Your task to perform on an android device: change keyboard looks Image 0: 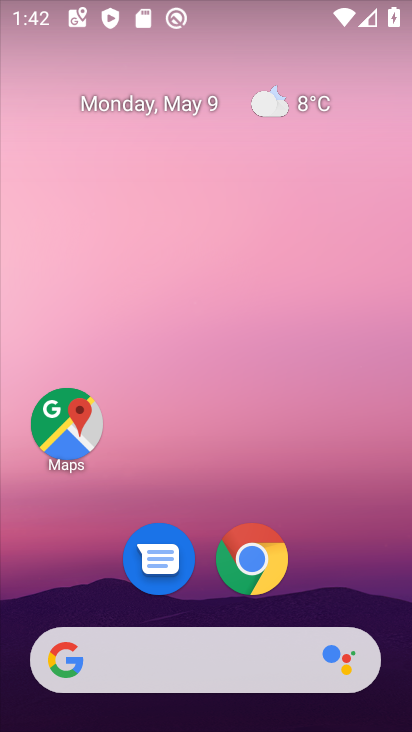
Step 0: drag from (254, 471) to (188, 5)
Your task to perform on an android device: change keyboard looks Image 1: 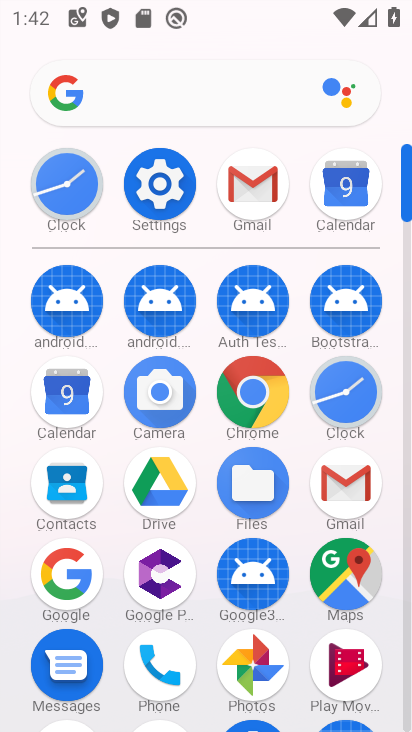
Step 1: click (158, 178)
Your task to perform on an android device: change keyboard looks Image 2: 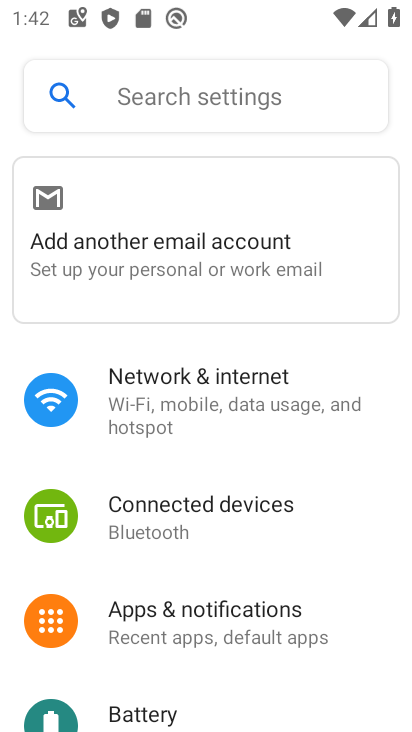
Step 2: drag from (224, 583) to (166, 191)
Your task to perform on an android device: change keyboard looks Image 3: 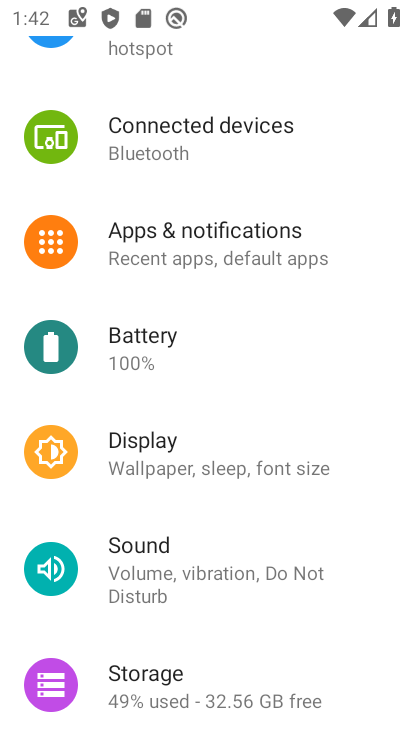
Step 3: drag from (230, 514) to (161, 8)
Your task to perform on an android device: change keyboard looks Image 4: 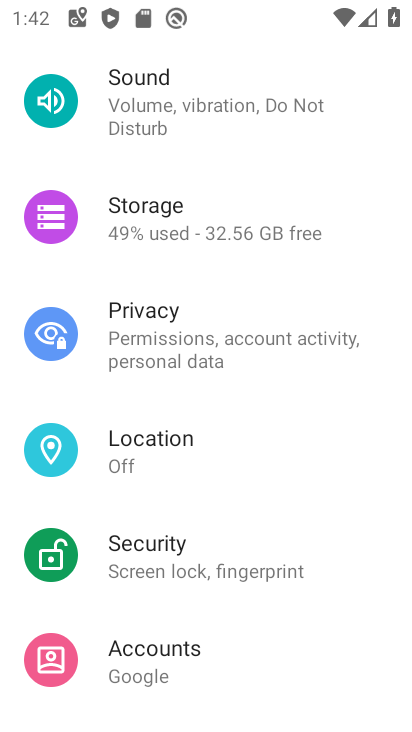
Step 4: drag from (200, 467) to (174, 230)
Your task to perform on an android device: change keyboard looks Image 5: 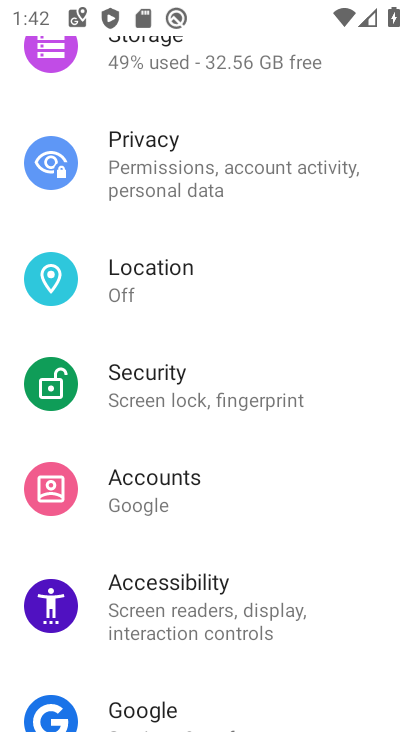
Step 5: drag from (214, 550) to (141, 146)
Your task to perform on an android device: change keyboard looks Image 6: 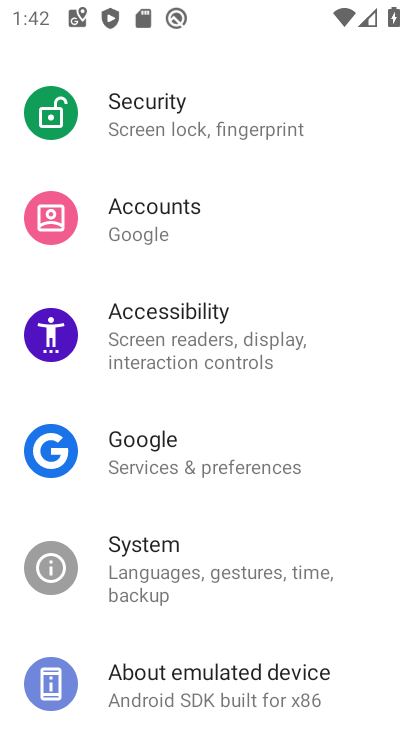
Step 6: click (152, 548)
Your task to perform on an android device: change keyboard looks Image 7: 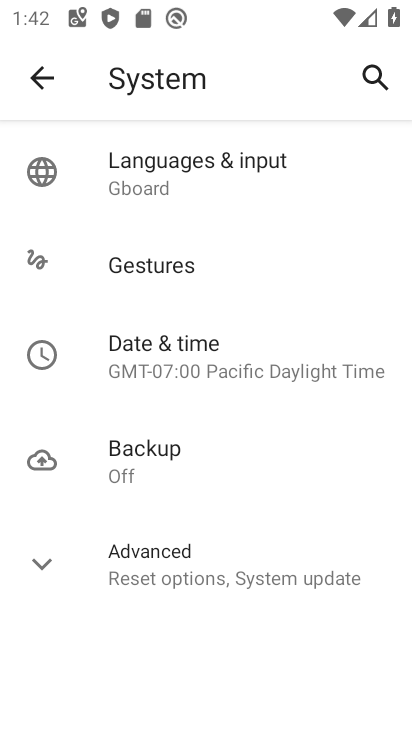
Step 7: click (130, 171)
Your task to perform on an android device: change keyboard looks Image 8: 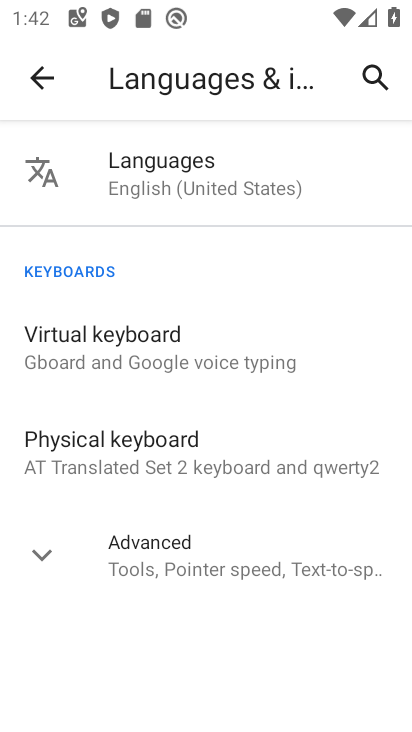
Step 8: click (108, 338)
Your task to perform on an android device: change keyboard looks Image 9: 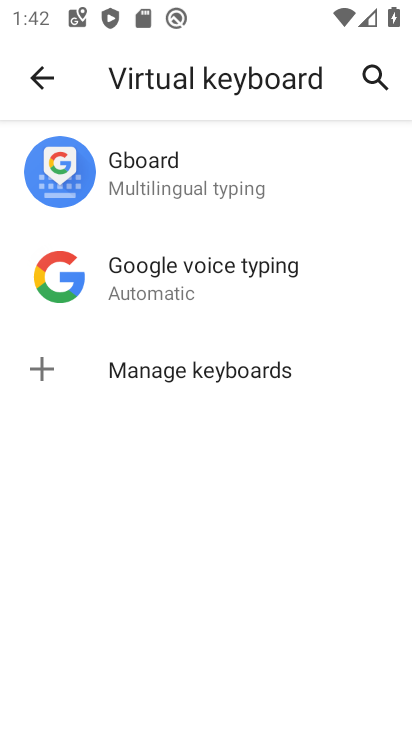
Step 9: click (137, 177)
Your task to perform on an android device: change keyboard looks Image 10: 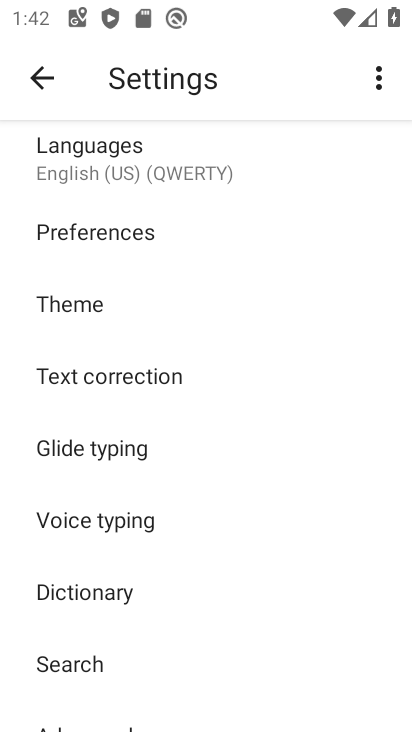
Step 10: click (63, 302)
Your task to perform on an android device: change keyboard looks Image 11: 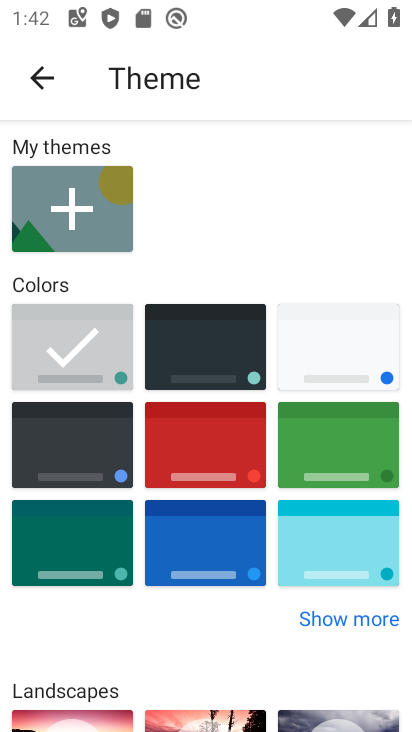
Step 11: click (204, 453)
Your task to perform on an android device: change keyboard looks Image 12: 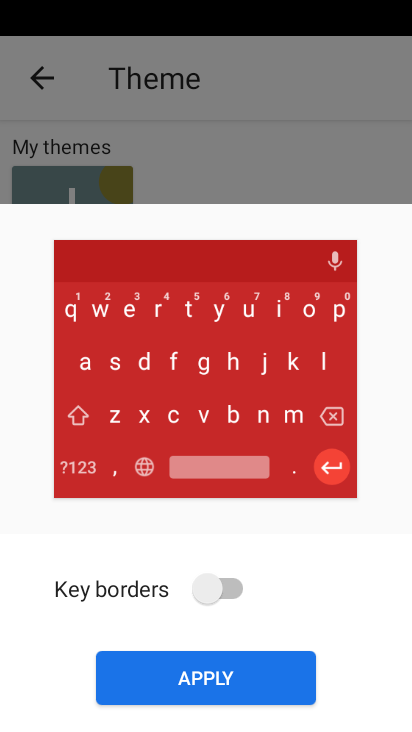
Step 12: click (209, 677)
Your task to perform on an android device: change keyboard looks Image 13: 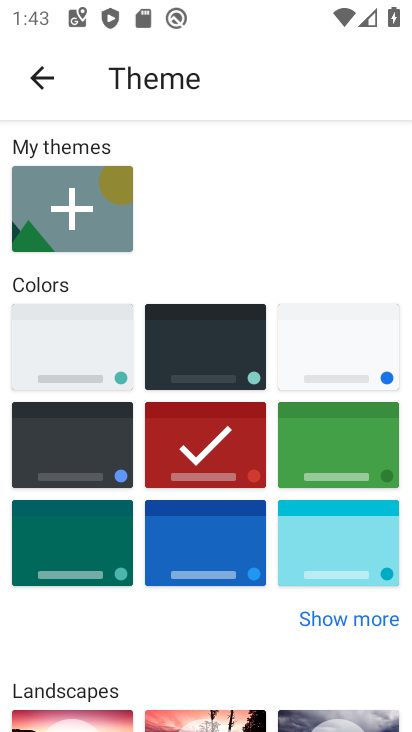
Step 13: task complete